Your task to perform on an android device: open a new tab in the chrome app Image 0: 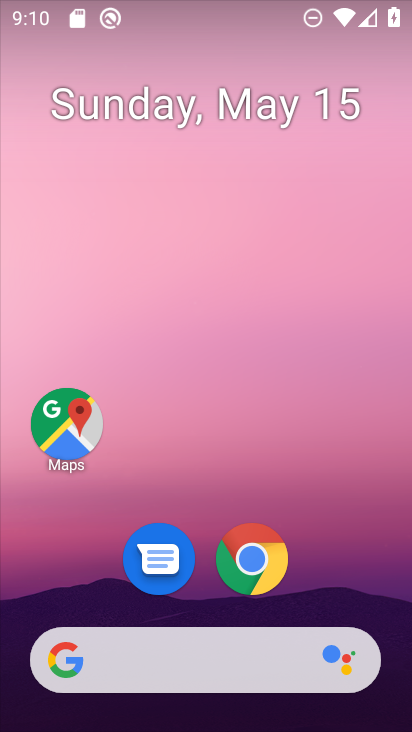
Step 0: click (267, 565)
Your task to perform on an android device: open a new tab in the chrome app Image 1: 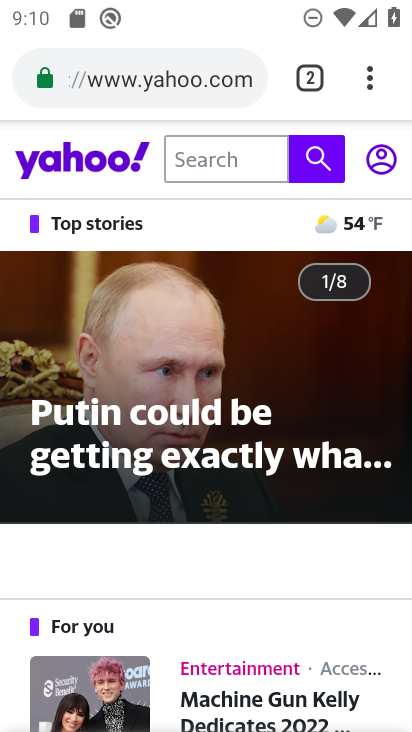
Step 1: click (319, 75)
Your task to perform on an android device: open a new tab in the chrome app Image 2: 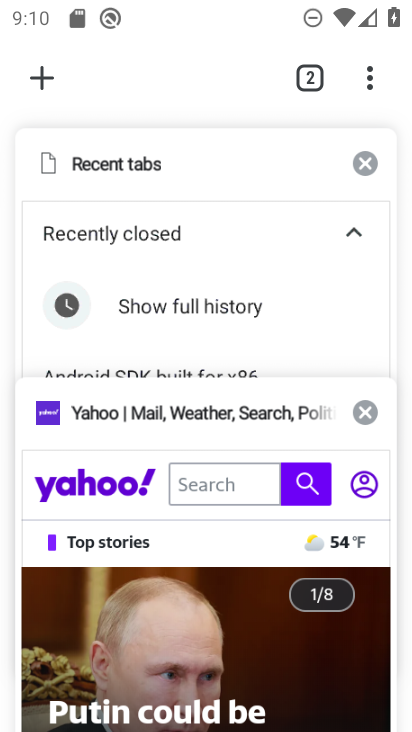
Step 2: click (25, 93)
Your task to perform on an android device: open a new tab in the chrome app Image 3: 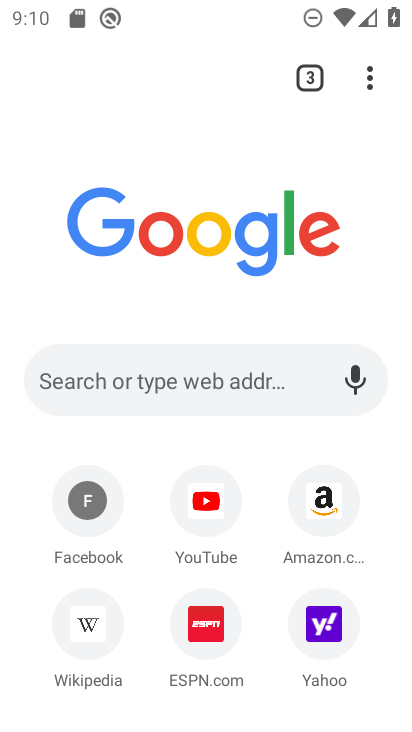
Step 3: task complete